Your task to perform on an android device: change timer sound Image 0: 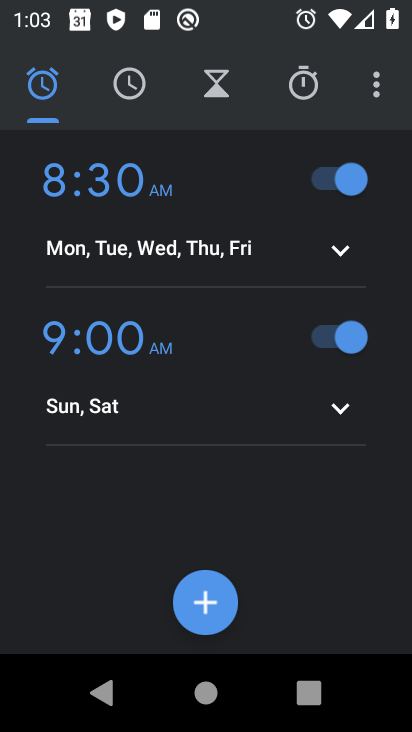
Step 0: click (380, 79)
Your task to perform on an android device: change timer sound Image 1: 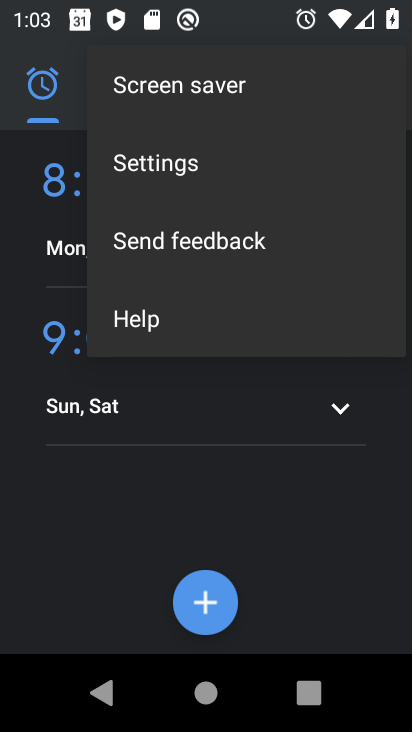
Step 1: click (170, 163)
Your task to perform on an android device: change timer sound Image 2: 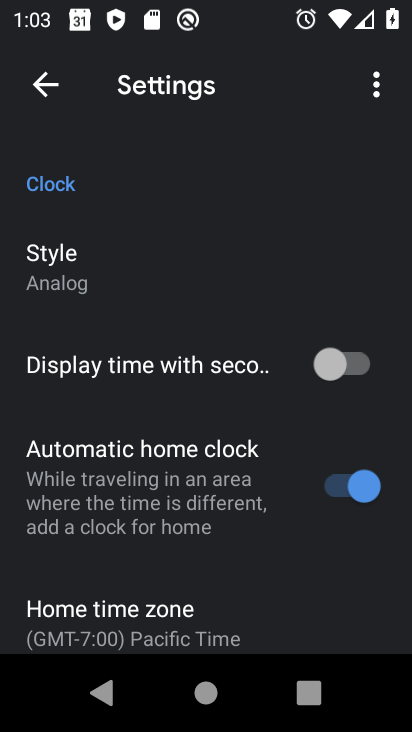
Step 2: drag from (147, 588) to (251, 108)
Your task to perform on an android device: change timer sound Image 3: 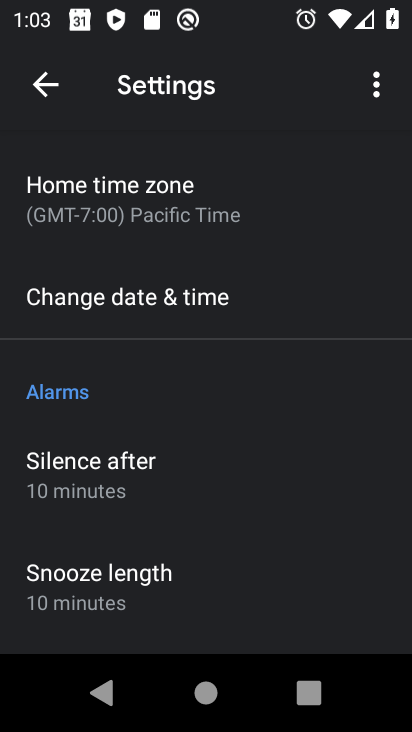
Step 3: drag from (147, 570) to (198, 170)
Your task to perform on an android device: change timer sound Image 4: 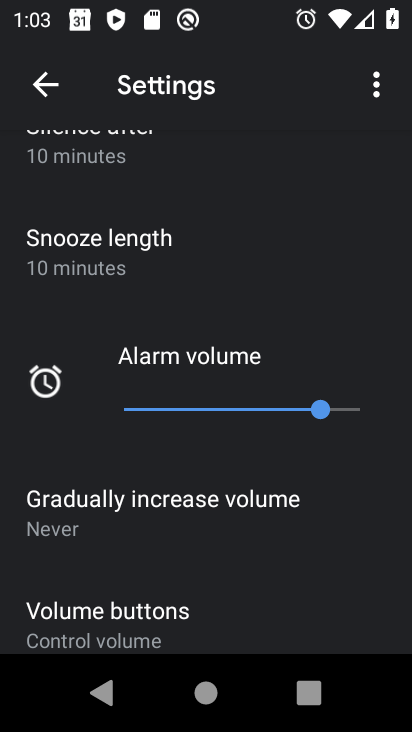
Step 4: drag from (160, 563) to (255, 149)
Your task to perform on an android device: change timer sound Image 5: 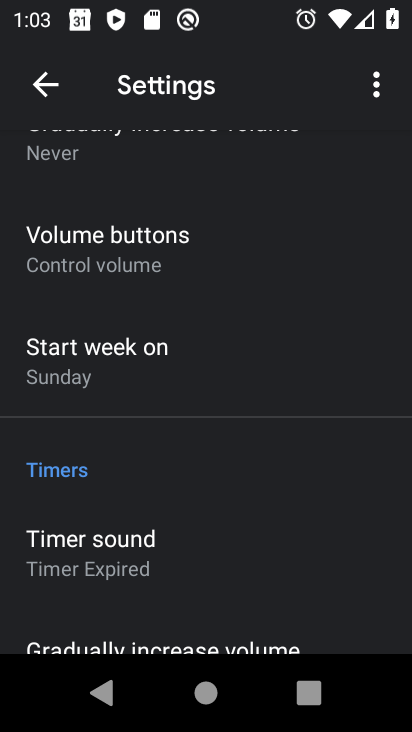
Step 5: click (116, 549)
Your task to perform on an android device: change timer sound Image 6: 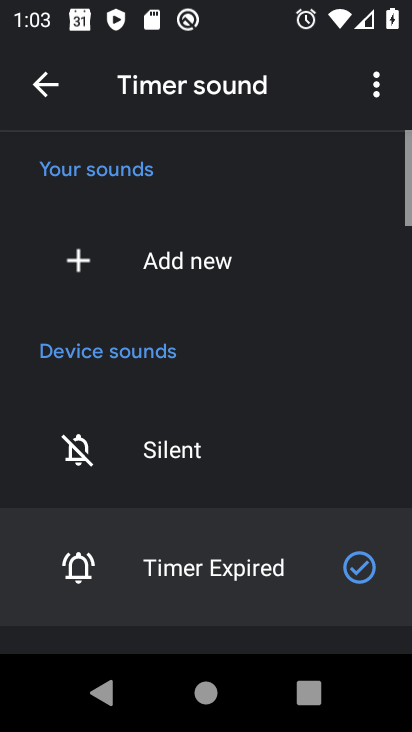
Step 6: drag from (154, 553) to (245, 253)
Your task to perform on an android device: change timer sound Image 7: 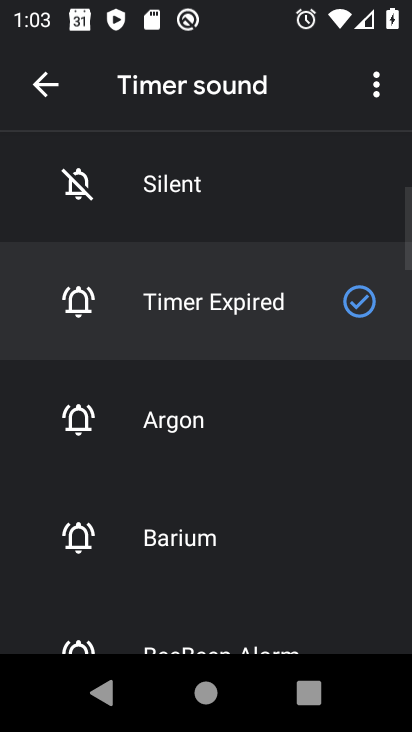
Step 7: click (194, 436)
Your task to perform on an android device: change timer sound Image 8: 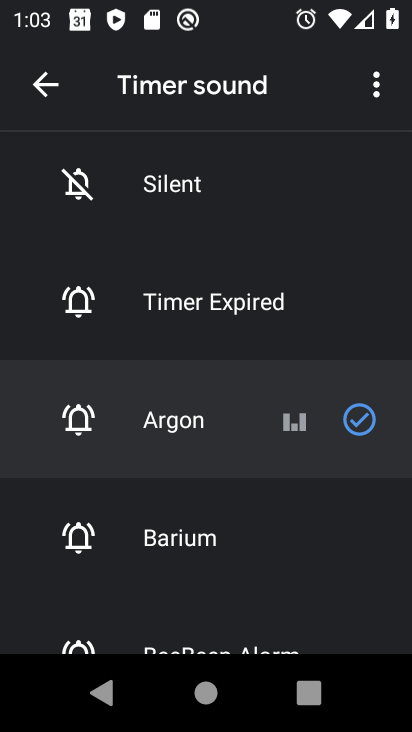
Step 8: task complete